Your task to perform on an android device: Go to notification settings Image 0: 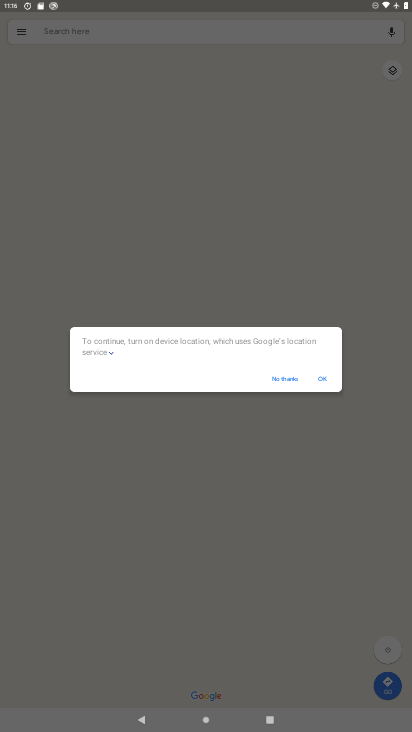
Step 0: press home button
Your task to perform on an android device: Go to notification settings Image 1: 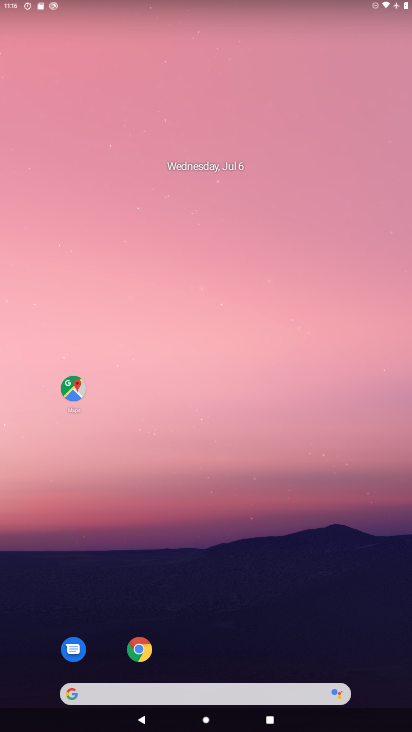
Step 1: drag from (381, 721) to (294, 93)
Your task to perform on an android device: Go to notification settings Image 2: 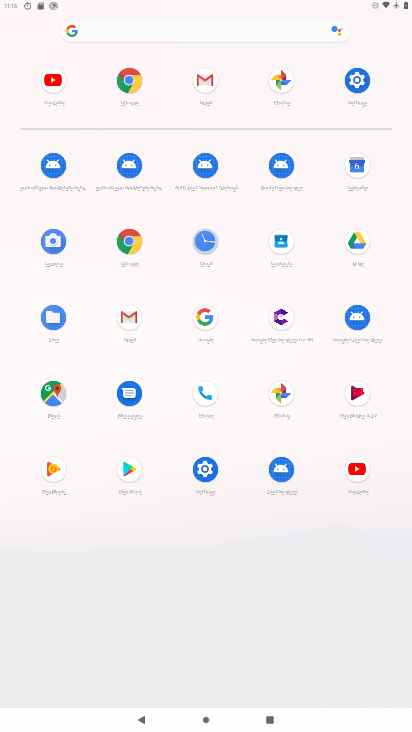
Step 2: click (353, 86)
Your task to perform on an android device: Go to notification settings Image 3: 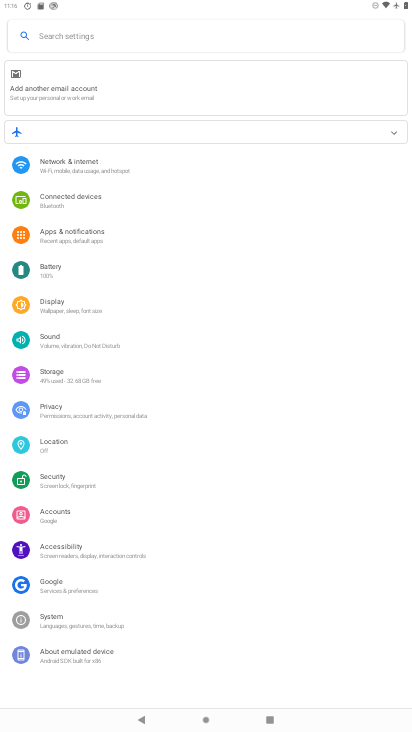
Step 3: click (51, 234)
Your task to perform on an android device: Go to notification settings Image 4: 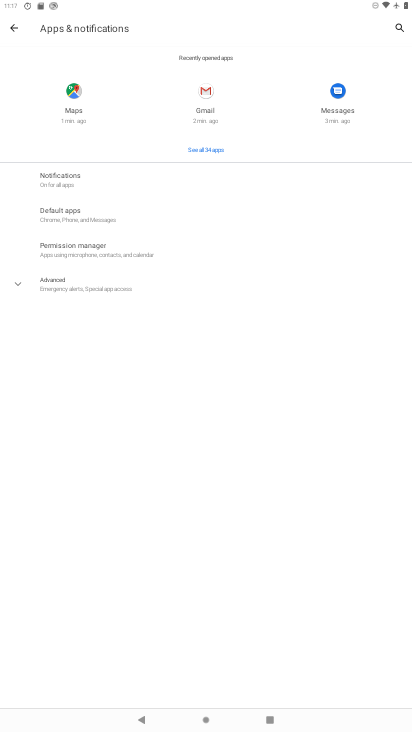
Step 4: click (48, 180)
Your task to perform on an android device: Go to notification settings Image 5: 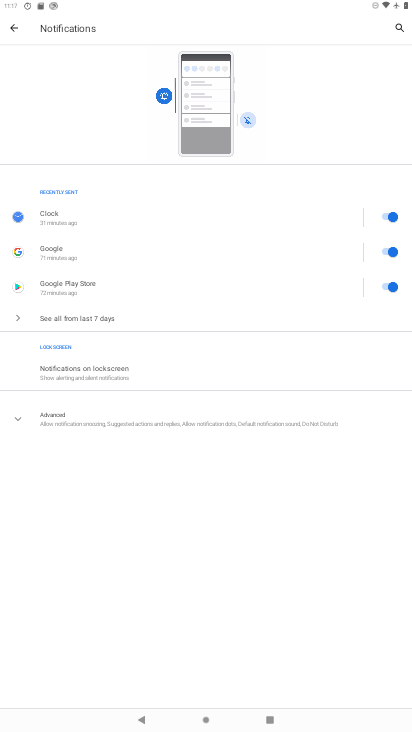
Step 5: click (60, 347)
Your task to perform on an android device: Go to notification settings Image 6: 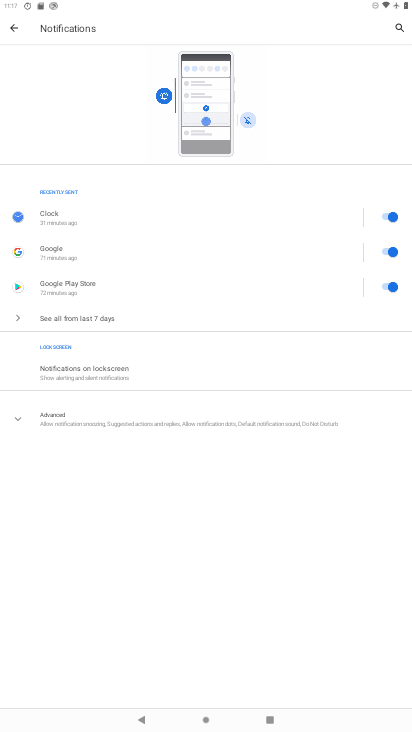
Step 6: click (63, 371)
Your task to perform on an android device: Go to notification settings Image 7: 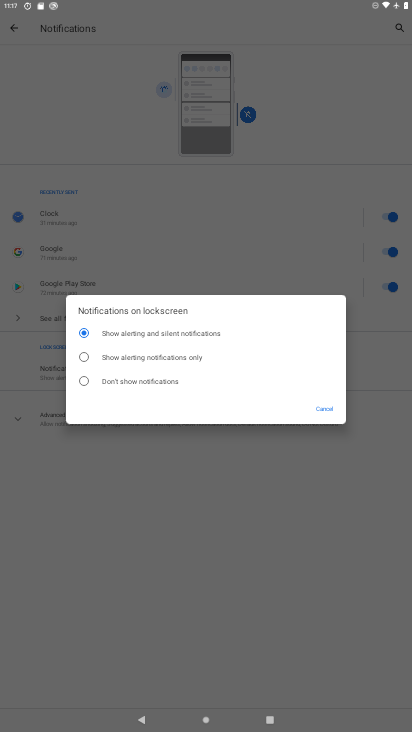
Step 7: click (173, 463)
Your task to perform on an android device: Go to notification settings Image 8: 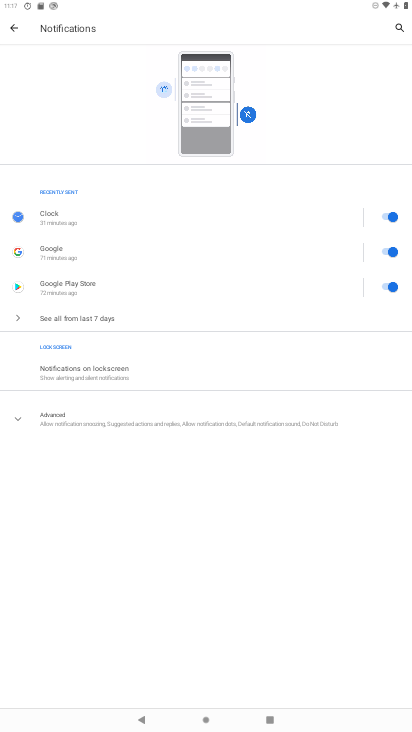
Step 8: click (14, 419)
Your task to perform on an android device: Go to notification settings Image 9: 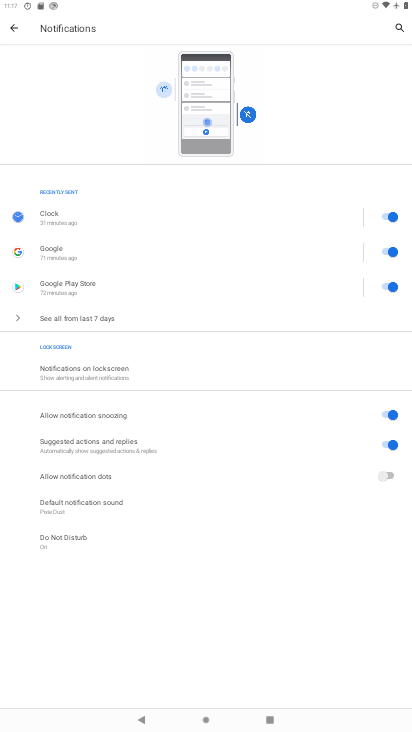
Step 9: task complete